Your task to perform on an android device: turn smart compose on in the gmail app Image 0: 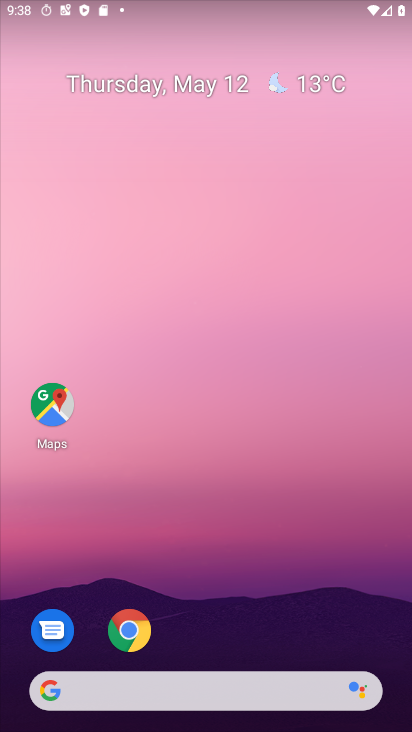
Step 0: drag from (209, 684) to (236, 119)
Your task to perform on an android device: turn smart compose on in the gmail app Image 1: 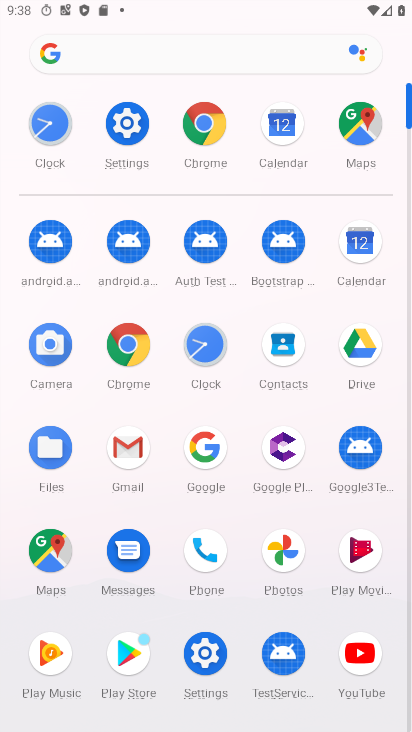
Step 1: click (131, 444)
Your task to perform on an android device: turn smart compose on in the gmail app Image 2: 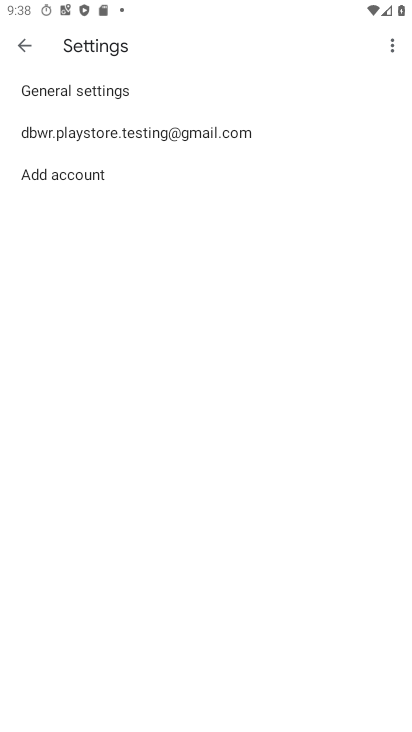
Step 2: click (87, 130)
Your task to perform on an android device: turn smart compose on in the gmail app Image 3: 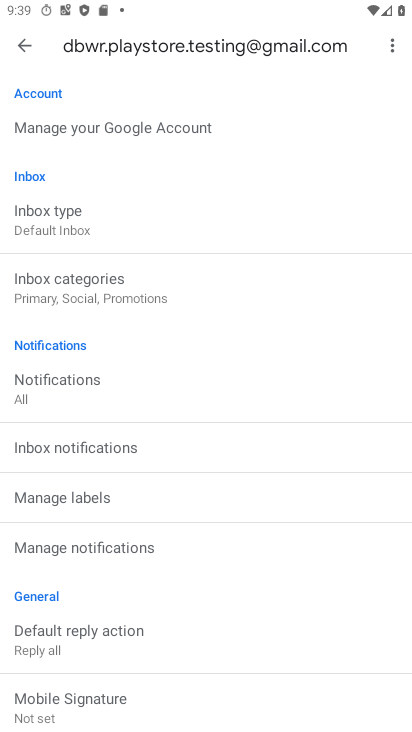
Step 3: task complete